Your task to perform on an android device: manage bookmarks in the chrome app Image 0: 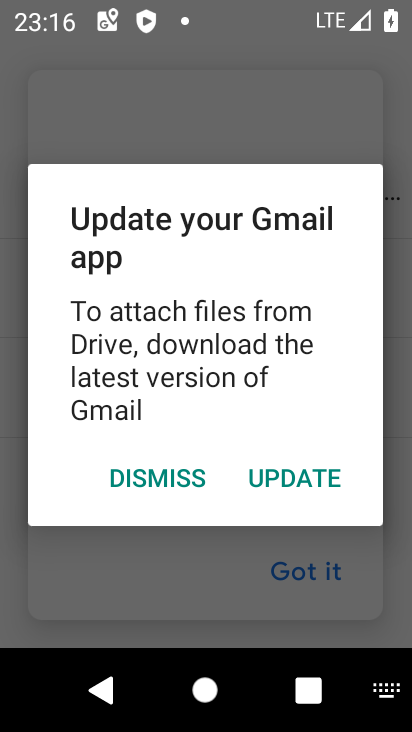
Step 0: press home button
Your task to perform on an android device: manage bookmarks in the chrome app Image 1: 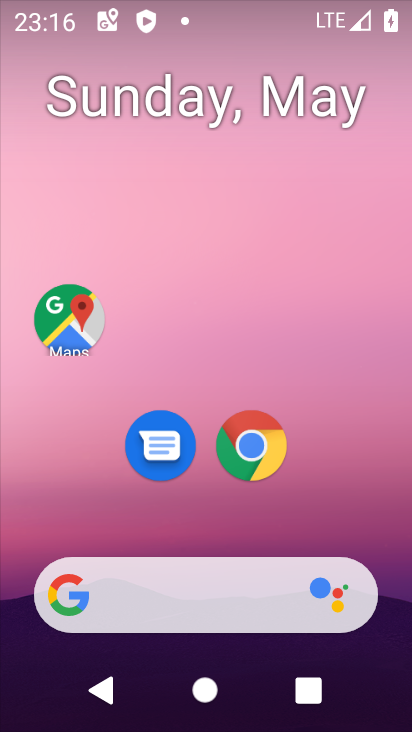
Step 1: click (263, 451)
Your task to perform on an android device: manage bookmarks in the chrome app Image 2: 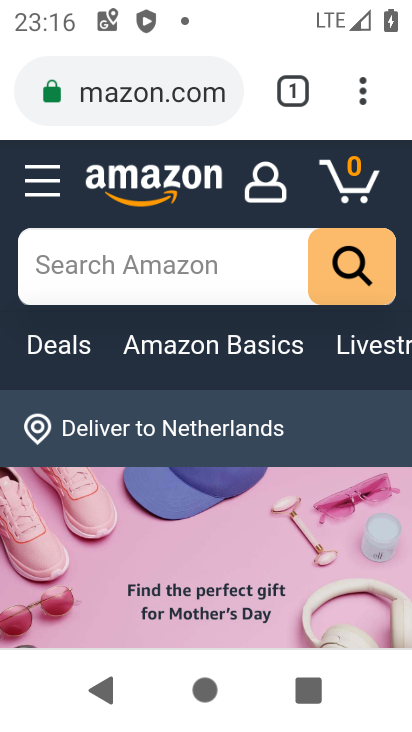
Step 2: click (365, 98)
Your task to perform on an android device: manage bookmarks in the chrome app Image 3: 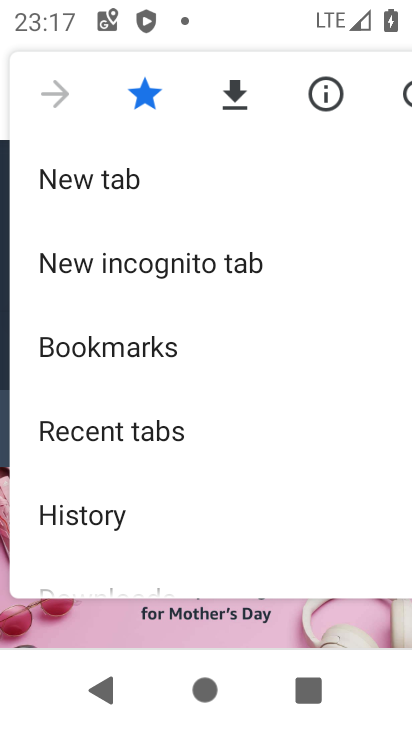
Step 3: click (52, 344)
Your task to perform on an android device: manage bookmarks in the chrome app Image 4: 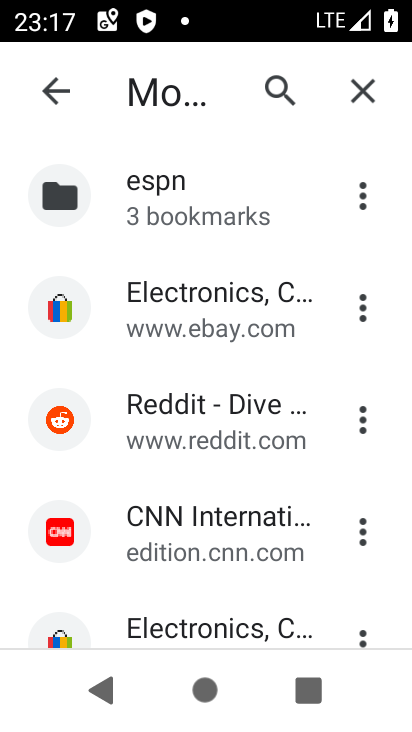
Step 4: click (365, 197)
Your task to perform on an android device: manage bookmarks in the chrome app Image 5: 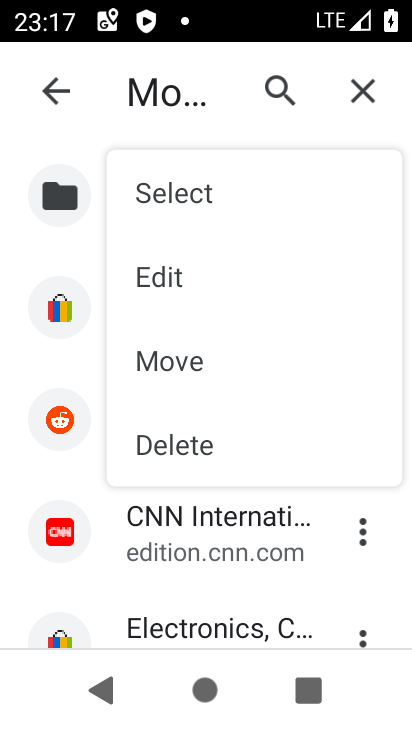
Step 5: click (158, 445)
Your task to perform on an android device: manage bookmarks in the chrome app Image 6: 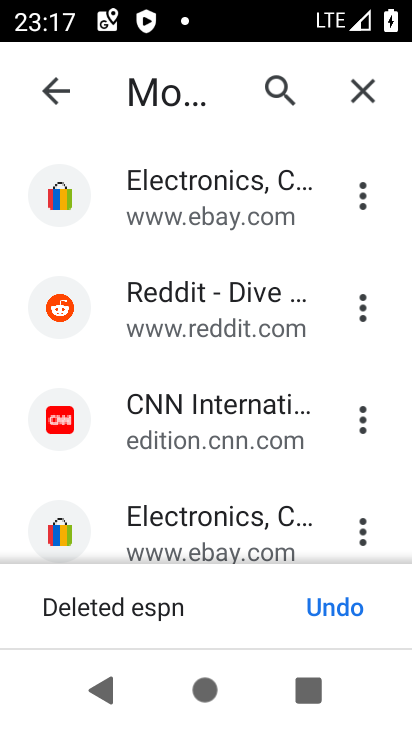
Step 6: task complete